Your task to perform on an android device: find snoozed emails in the gmail app Image 0: 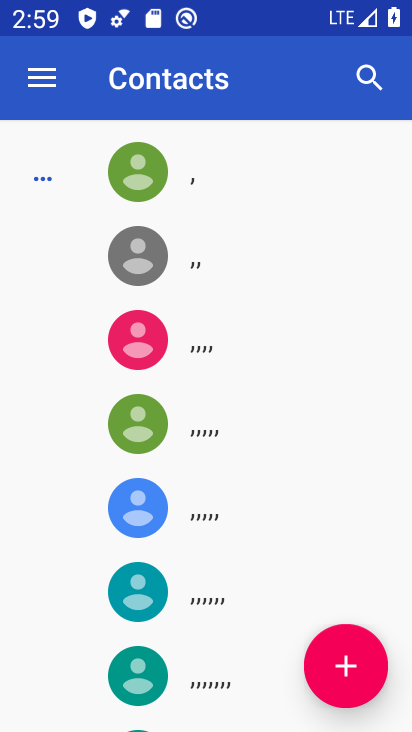
Step 0: press home button
Your task to perform on an android device: find snoozed emails in the gmail app Image 1: 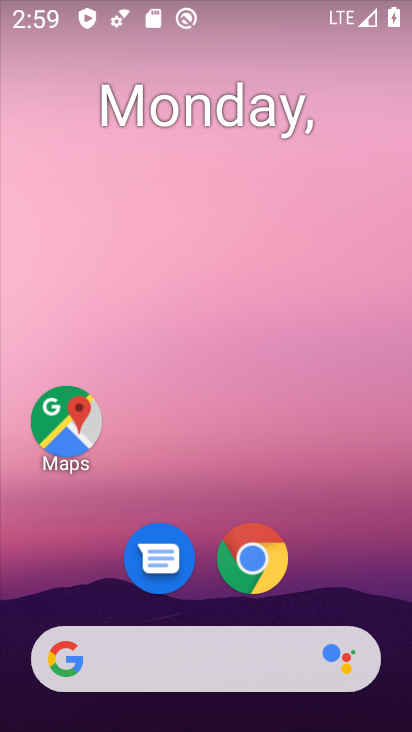
Step 1: drag from (354, 595) to (385, 6)
Your task to perform on an android device: find snoozed emails in the gmail app Image 2: 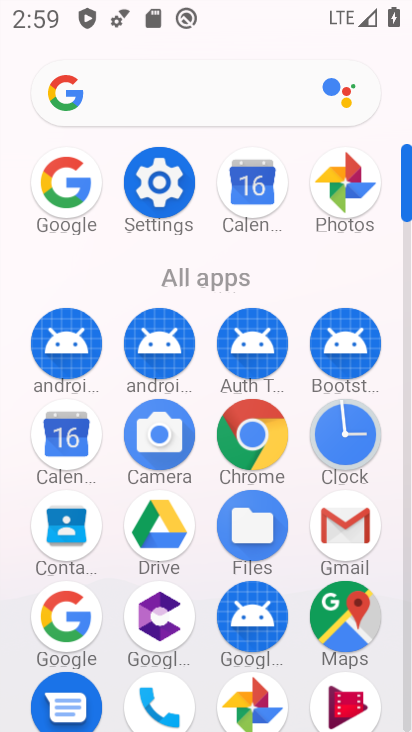
Step 2: click (352, 527)
Your task to perform on an android device: find snoozed emails in the gmail app Image 3: 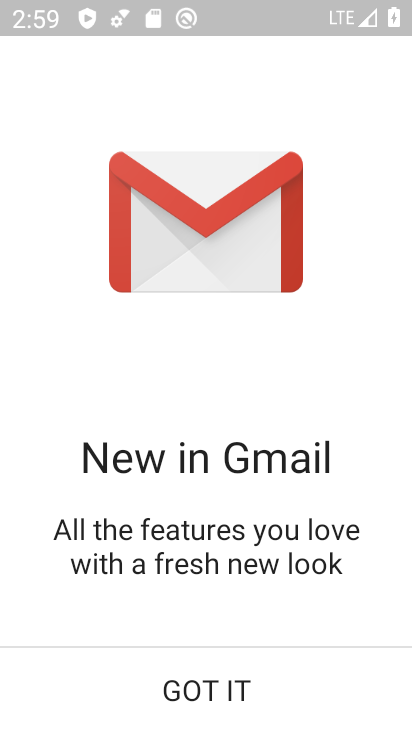
Step 3: click (184, 692)
Your task to perform on an android device: find snoozed emails in the gmail app Image 4: 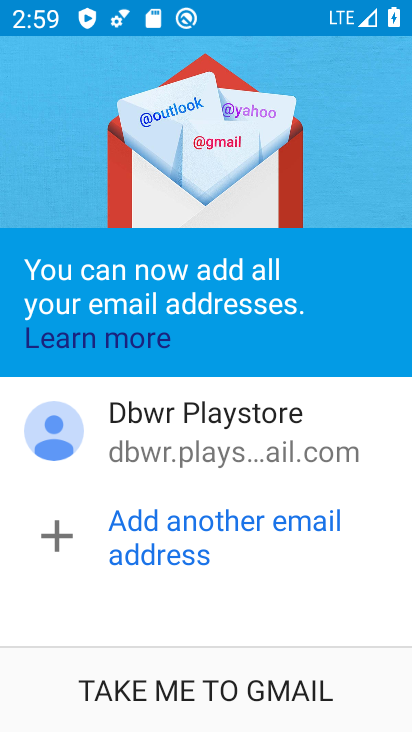
Step 4: click (184, 692)
Your task to perform on an android device: find snoozed emails in the gmail app Image 5: 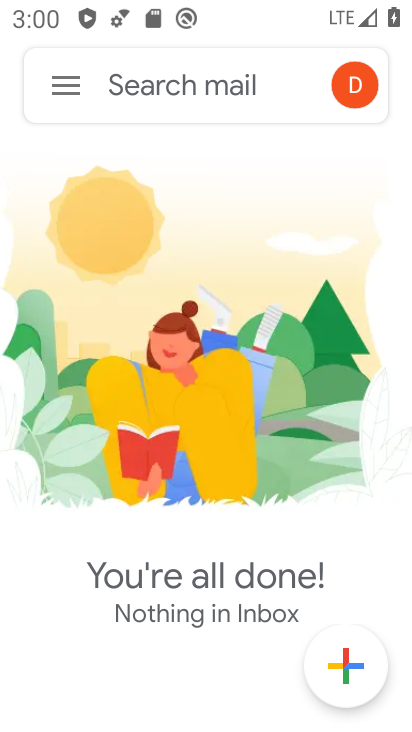
Step 5: click (53, 85)
Your task to perform on an android device: find snoozed emails in the gmail app Image 6: 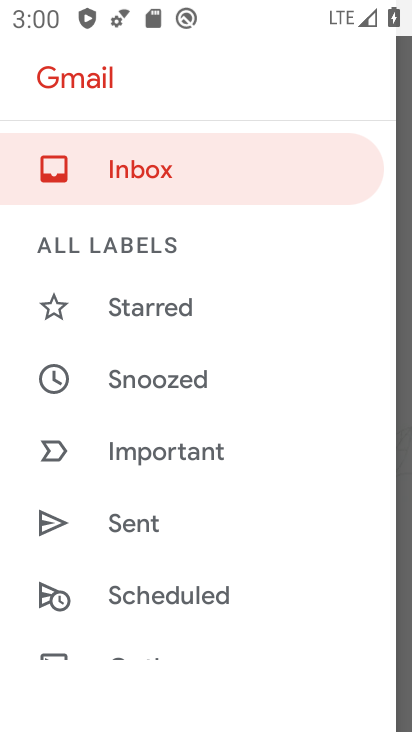
Step 6: click (149, 385)
Your task to perform on an android device: find snoozed emails in the gmail app Image 7: 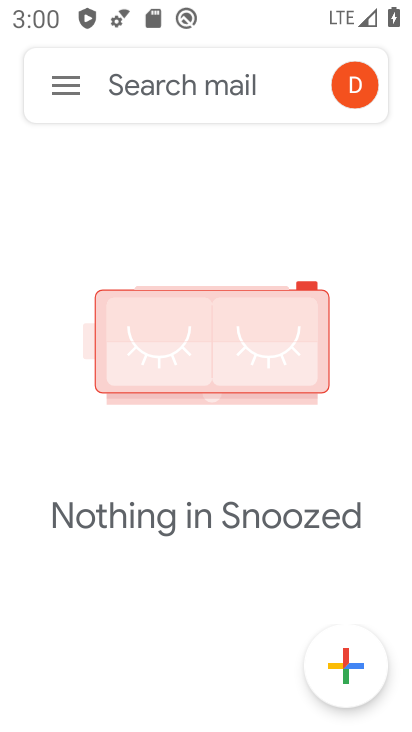
Step 7: task complete